Your task to perform on an android device: Open accessibility settings Image 0: 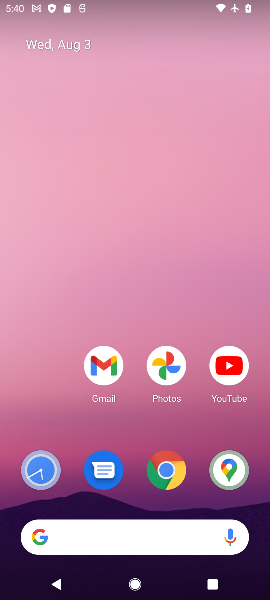
Step 0: drag from (71, 414) to (155, 49)
Your task to perform on an android device: Open accessibility settings Image 1: 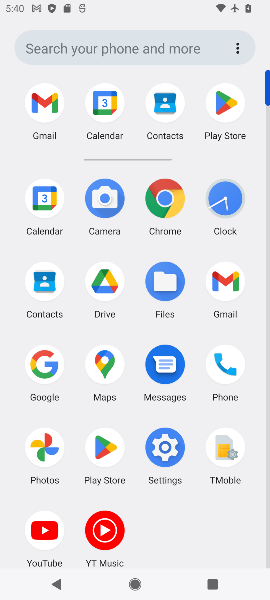
Step 1: click (168, 440)
Your task to perform on an android device: Open accessibility settings Image 2: 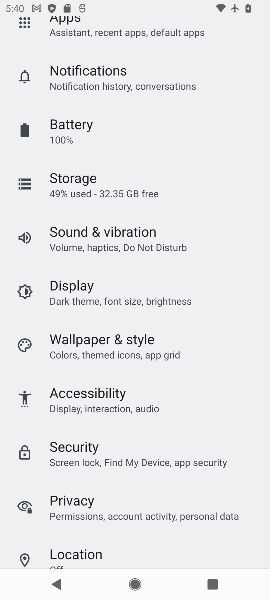
Step 2: click (115, 400)
Your task to perform on an android device: Open accessibility settings Image 3: 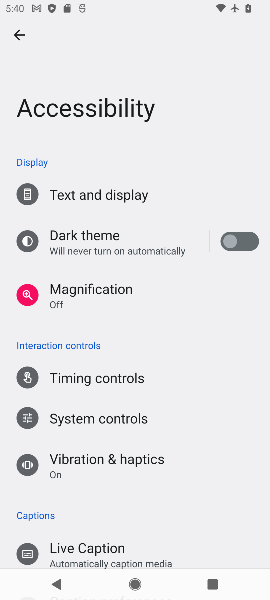
Step 3: task complete